Your task to perform on an android device: Open the web browser Image 0: 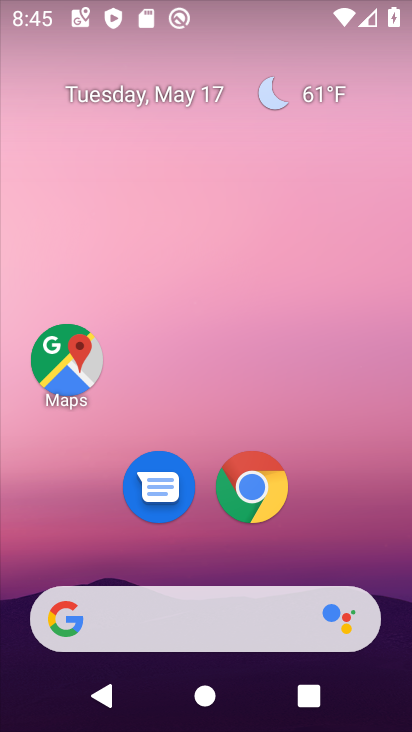
Step 0: press home button
Your task to perform on an android device: Open the web browser Image 1: 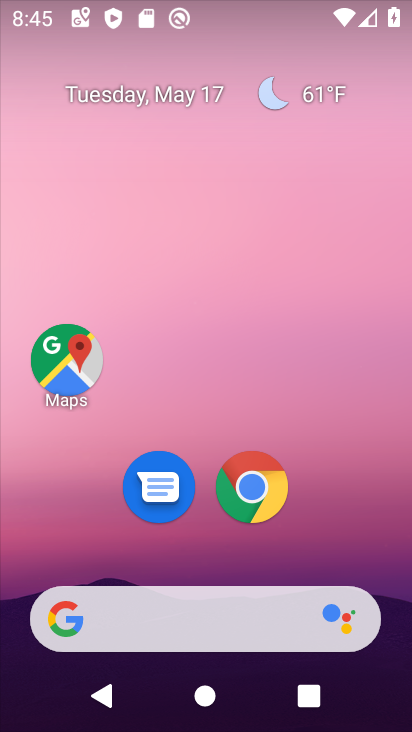
Step 1: click (260, 515)
Your task to perform on an android device: Open the web browser Image 2: 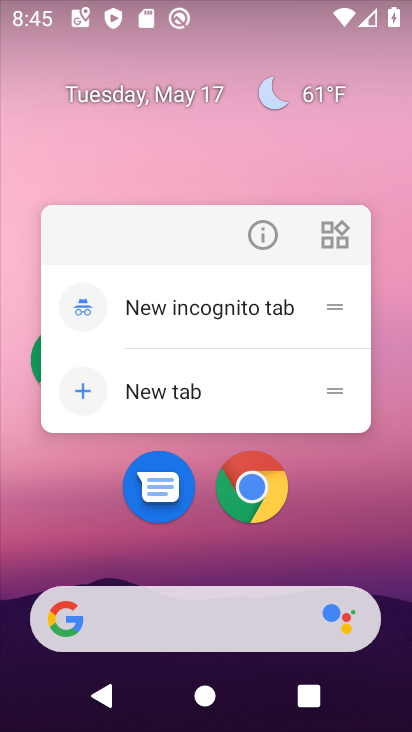
Step 2: click (259, 486)
Your task to perform on an android device: Open the web browser Image 3: 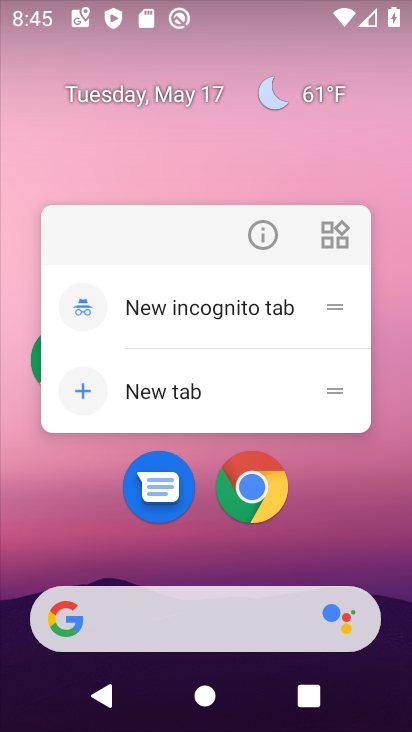
Step 3: click (247, 500)
Your task to perform on an android device: Open the web browser Image 4: 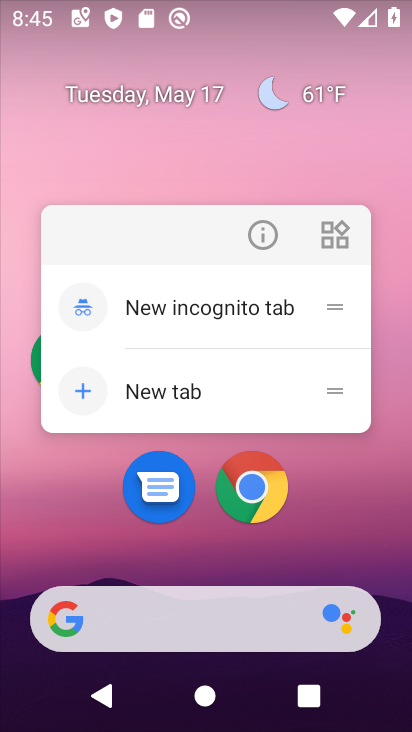
Step 4: click (247, 501)
Your task to perform on an android device: Open the web browser Image 5: 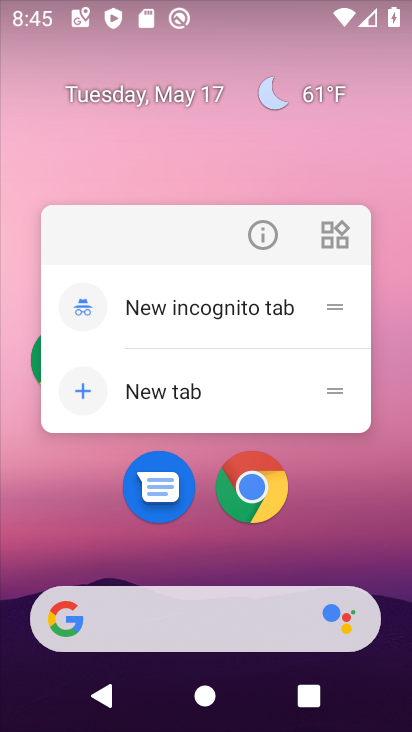
Step 5: click (256, 483)
Your task to perform on an android device: Open the web browser Image 6: 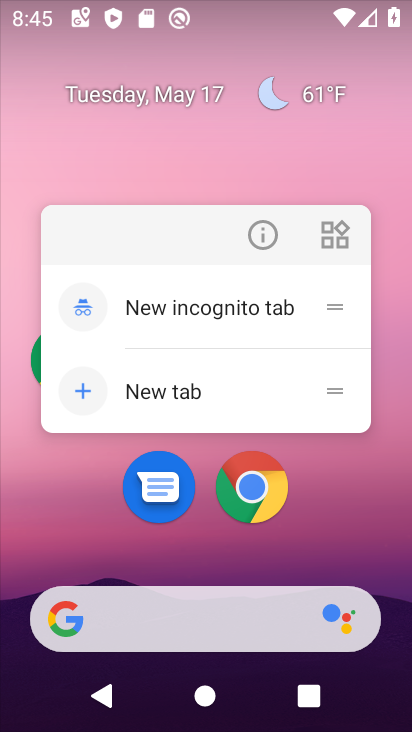
Step 6: click (258, 501)
Your task to perform on an android device: Open the web browser Image 7: 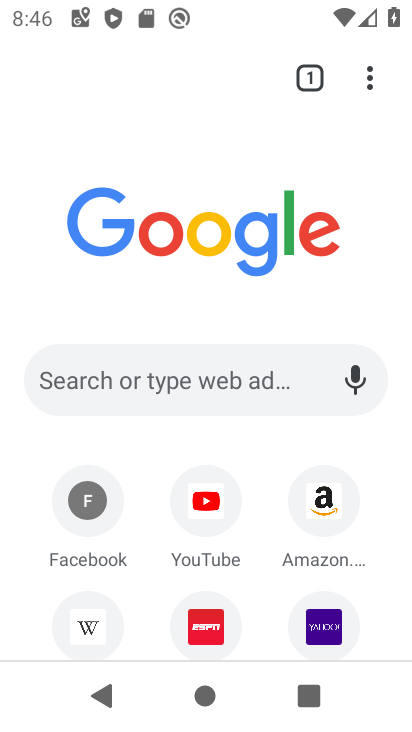
Step 7: task complete